Your task to perform on an android device: What's the weather? Image 0: 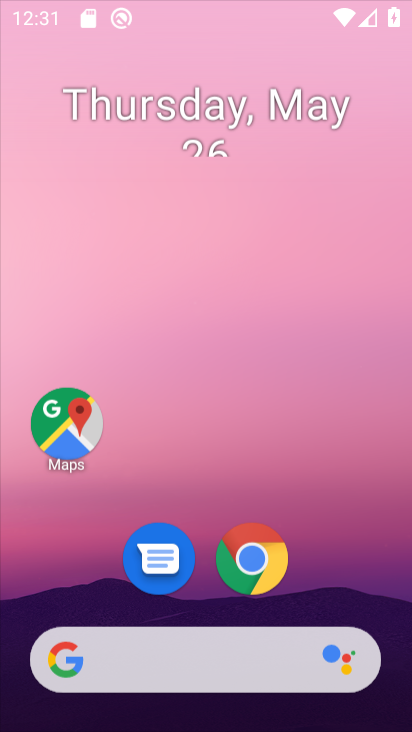
Step 0: press home button
Your task to perform on an android device: What's the weather? Image 1: 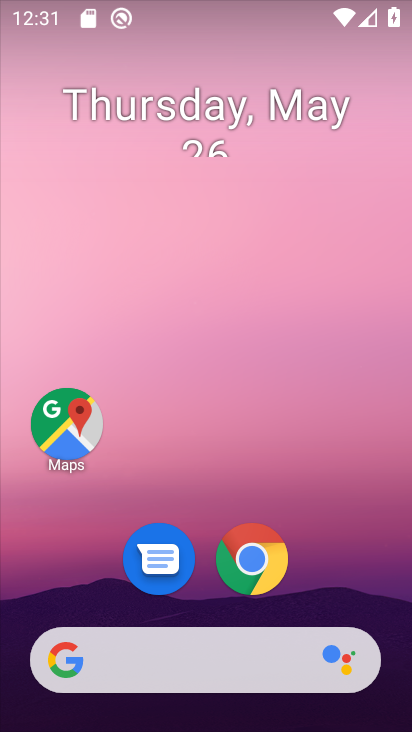
Step 1: click (65, 676)
Your task to perform on an android device: What's the weather? Image 2: 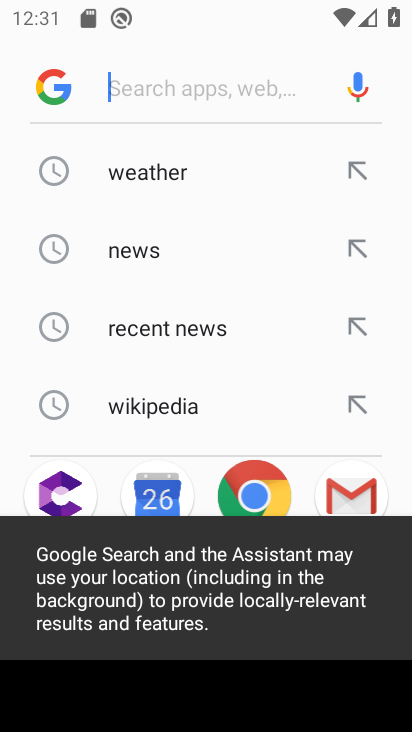
Step 2: click (162, 169)
Your task to perform on an android device: What's the weather? Image 3: 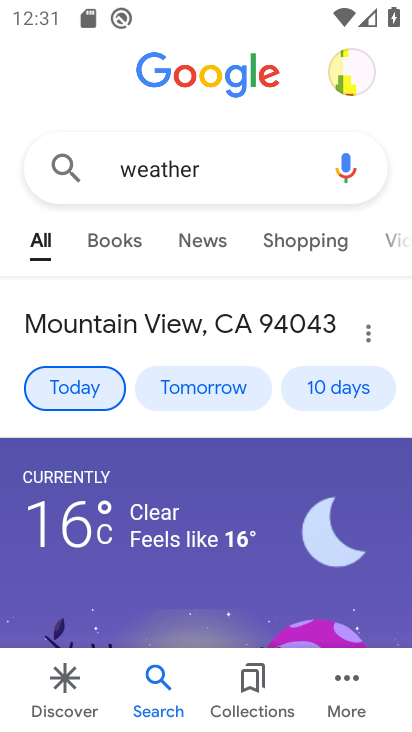
Step 3: task complete